Your task to perform on an android device: Is it going to rain tomorrow? Image 0: 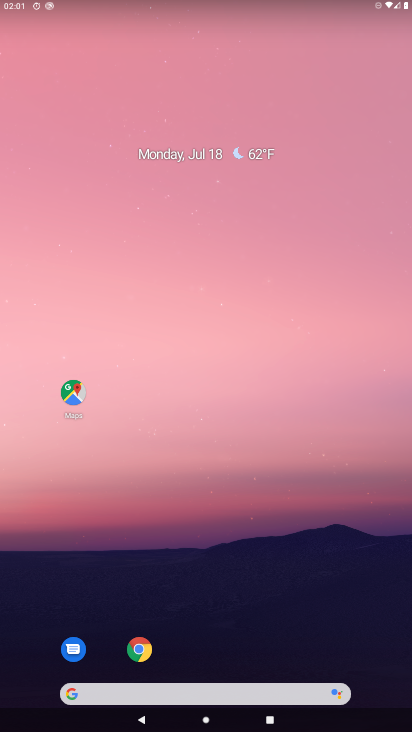
Step 0: click (122, 699)
Your task to perform on an android device: Is it going to rain tomorrow? Image 1: 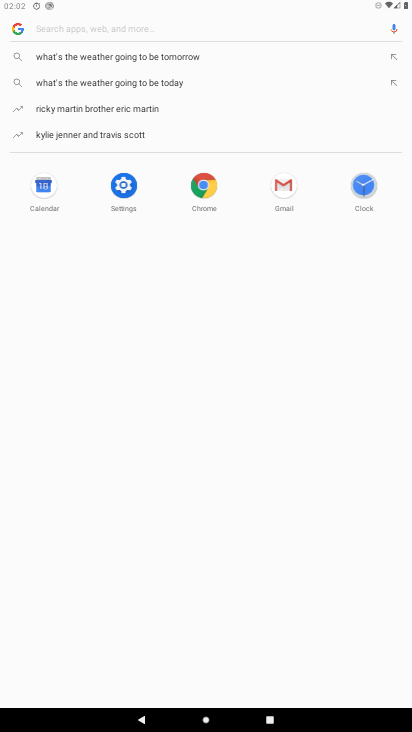
Step 1: type "Is it going to rain tomorrow?"
Your task to perform on an android device: Is it going to rain tomorrow? Image 2: 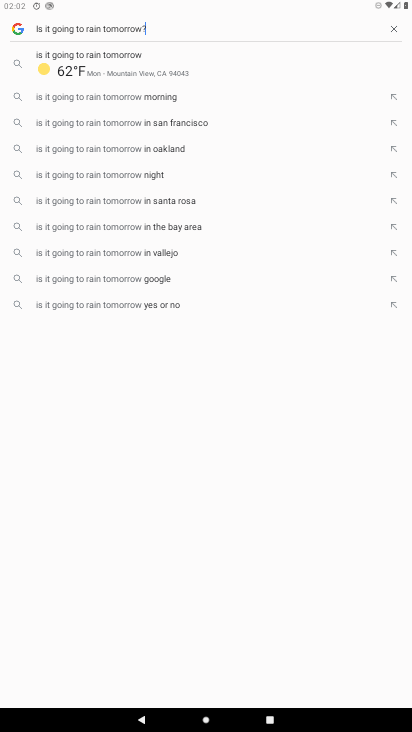
Step 2: type ""
Your task to perform on an android device: Is it going to rain tomorrow? Image 3: 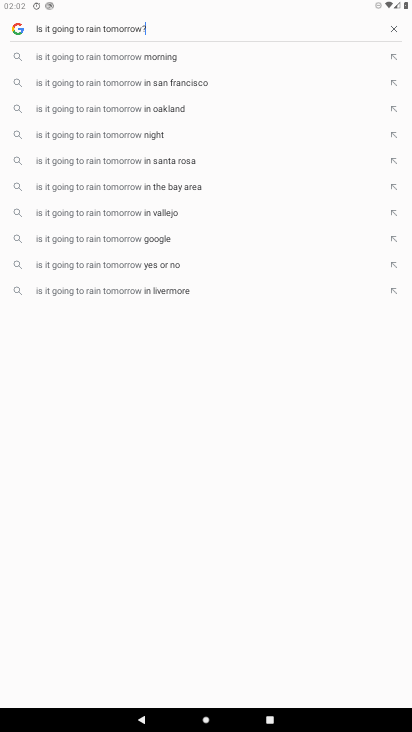
Step 3: type ""
Your task to perform on an android device: Is it going to rain tomorrow? Image 4: 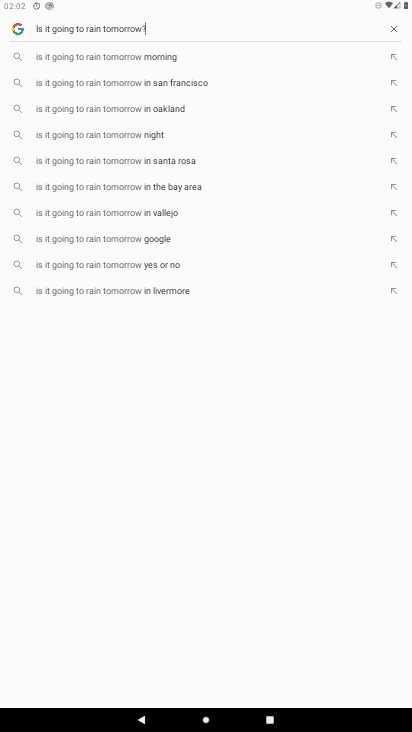
Step 4: task complete